Your task to perform on an android device: Empty the shopping cart on target.com. Add panasonic triple a to the cart on target.com, then select checkout. Image 0: 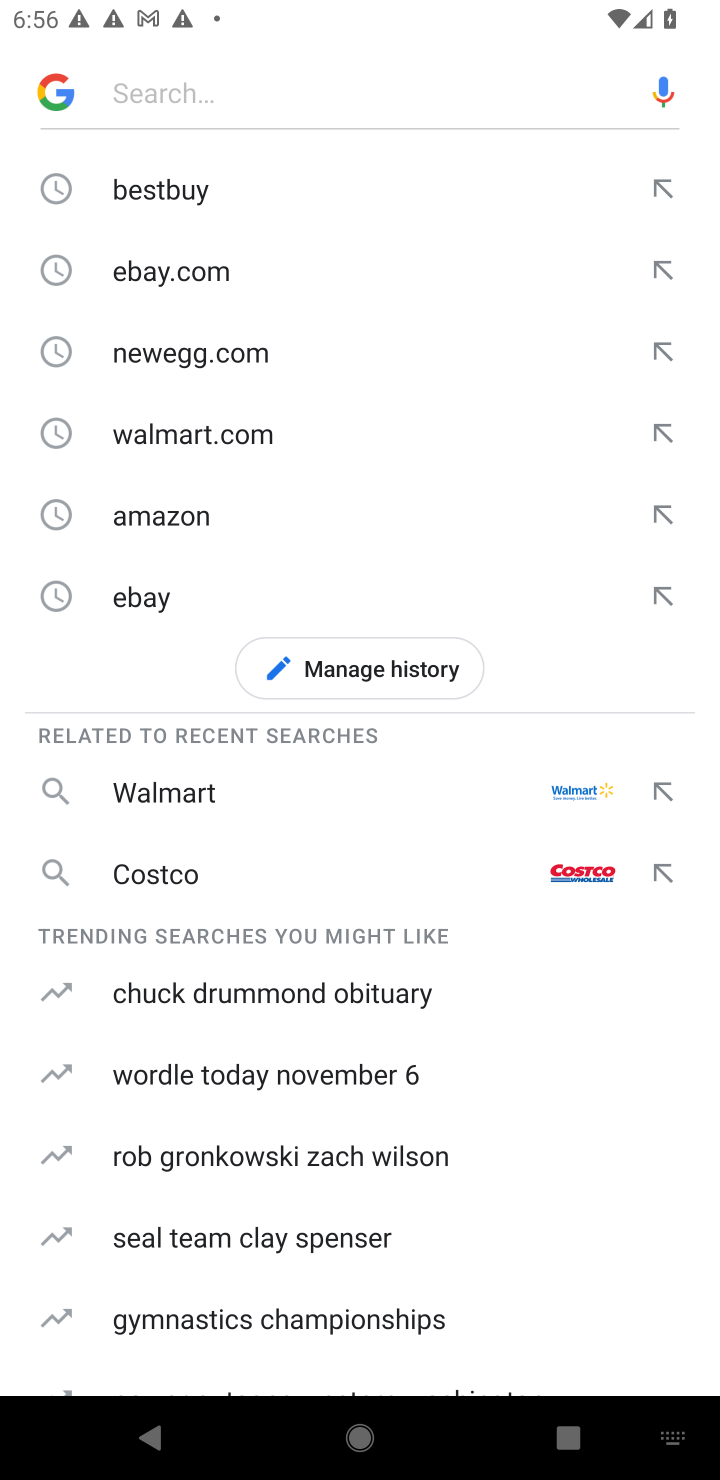
Step 0: press home button
Your task to perform on an android device: Empty the shopping cart on target.com. Add panasonic triple a to the cart on target.com, then select checkout. Image 1: 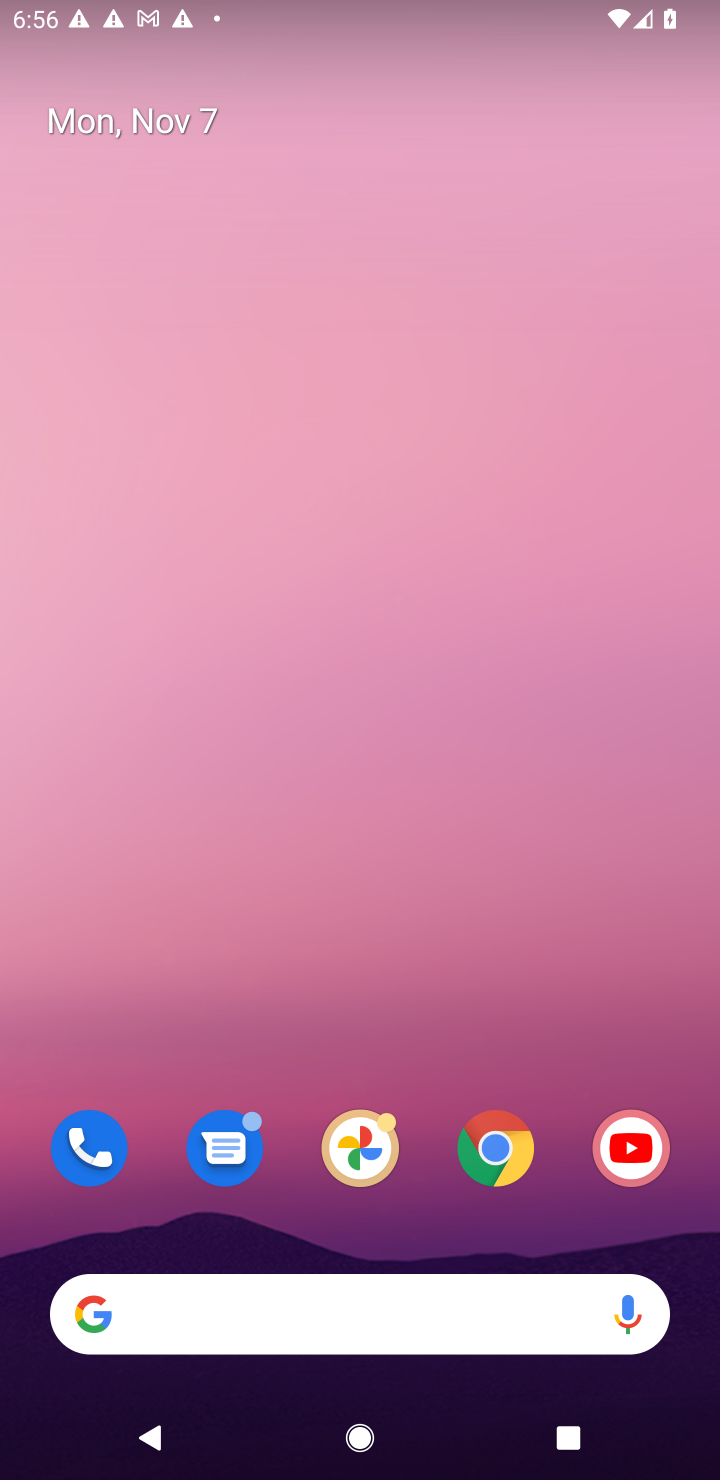
Step 1: click (494, 1141)
Your task to perform on an android device: Empty the shopping cart on target.com. Add panasonic triple a to the cart on target.com, then select checkout. Image 2: 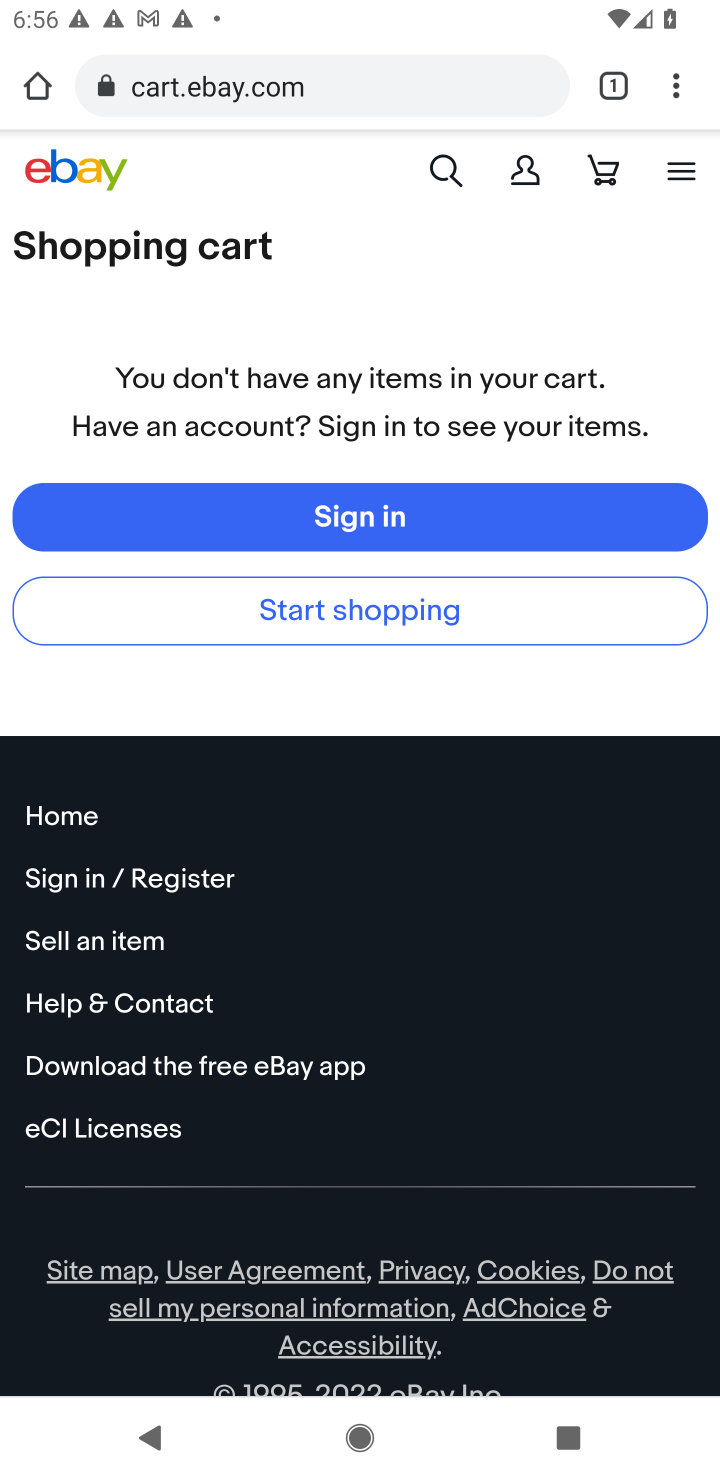
Step 2: click (410, 105)
Your task to perform on an android device: Empty the shopping cart on target.com. Add panasonic triple a to the cart on target.com, then select checkout. Image 3: 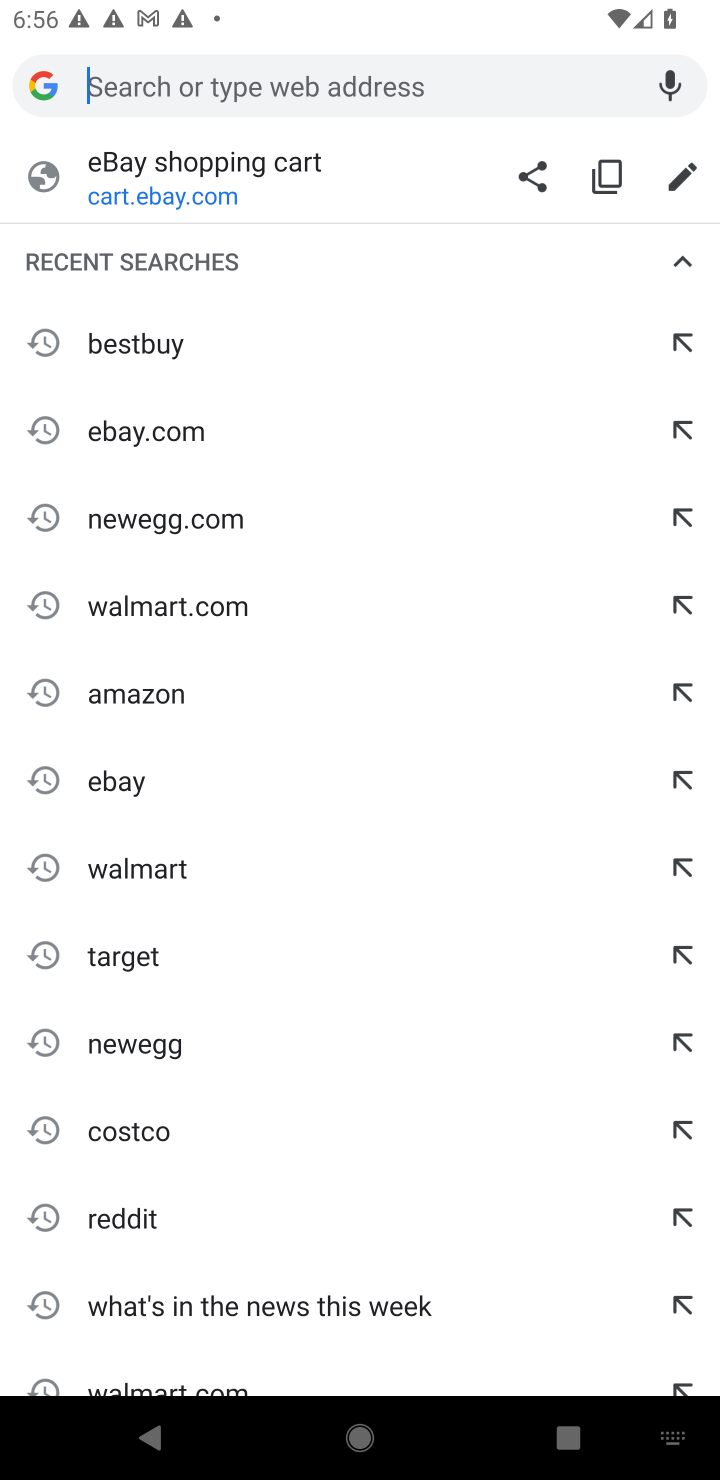
Step 3: type "target.com"
Your task to perform on an android device: Empty the shopping cart on target.com. Add panasonic triple a to the cart on target.com, then select checkout. Image 4: 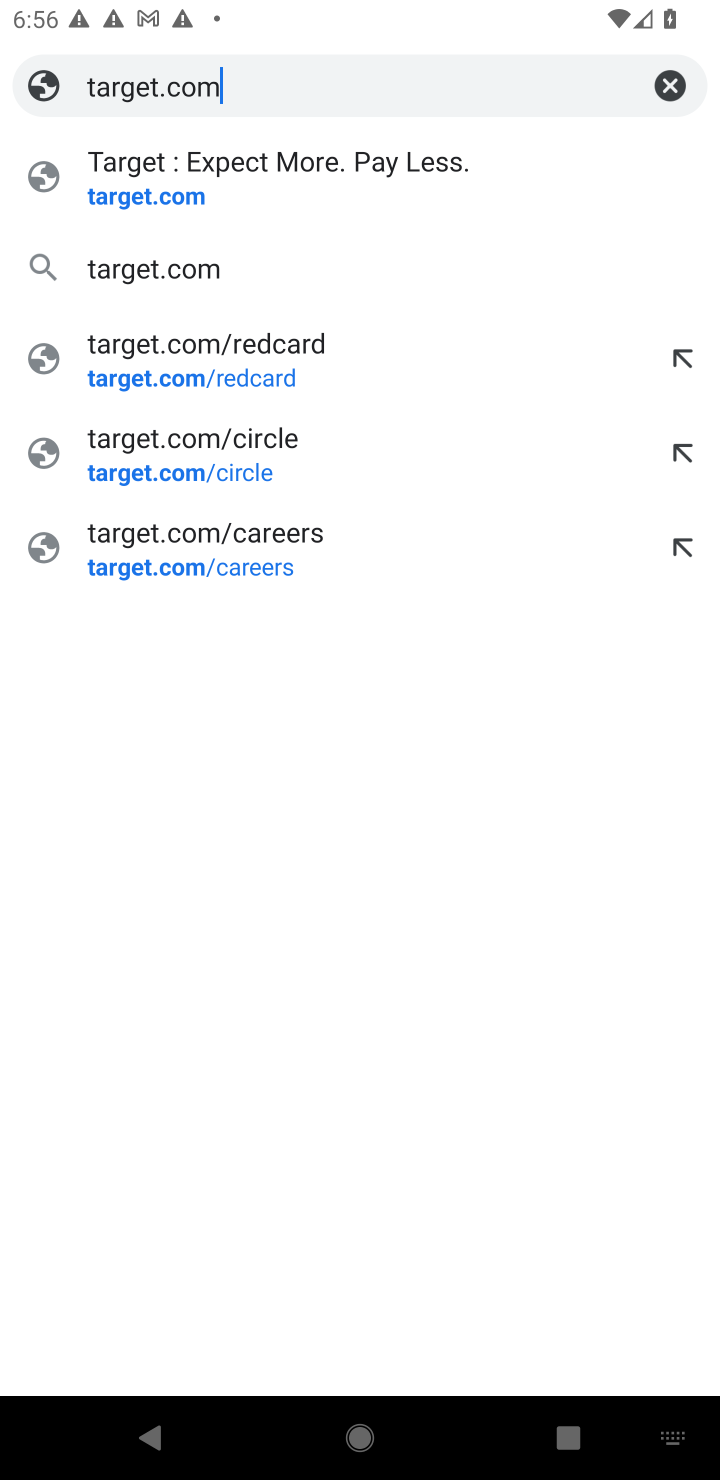
Step 4: click (177, 258)
Your task to perform on an android device: Empty the shopping cart on target.com. Add panasonic triple a to the cart on target.com, then select checkout. Image 5: 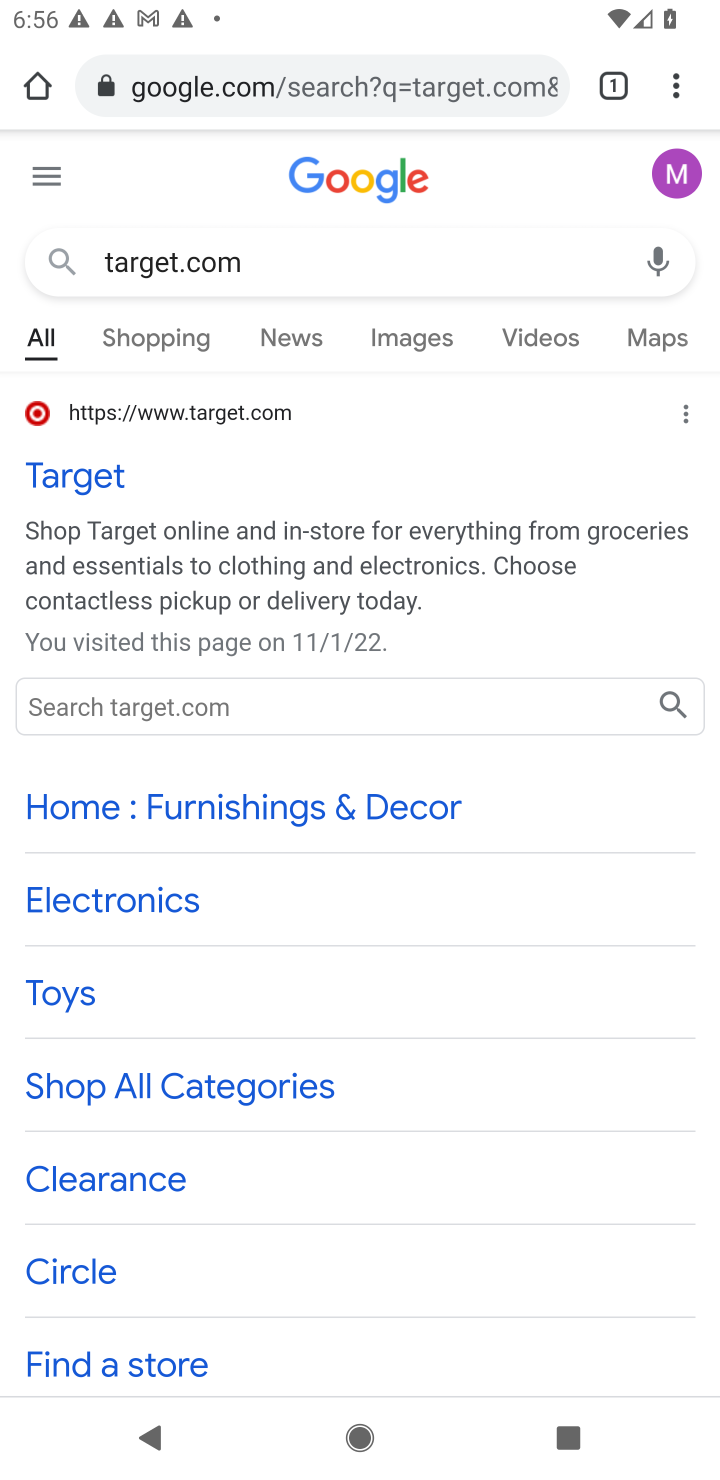
Step 5: click (149, 405)
Your task to perform on an android device: Empty the shopping cart on target.com. Add panasonic triple a to the cart on target.com, then select checkout. Image 6: 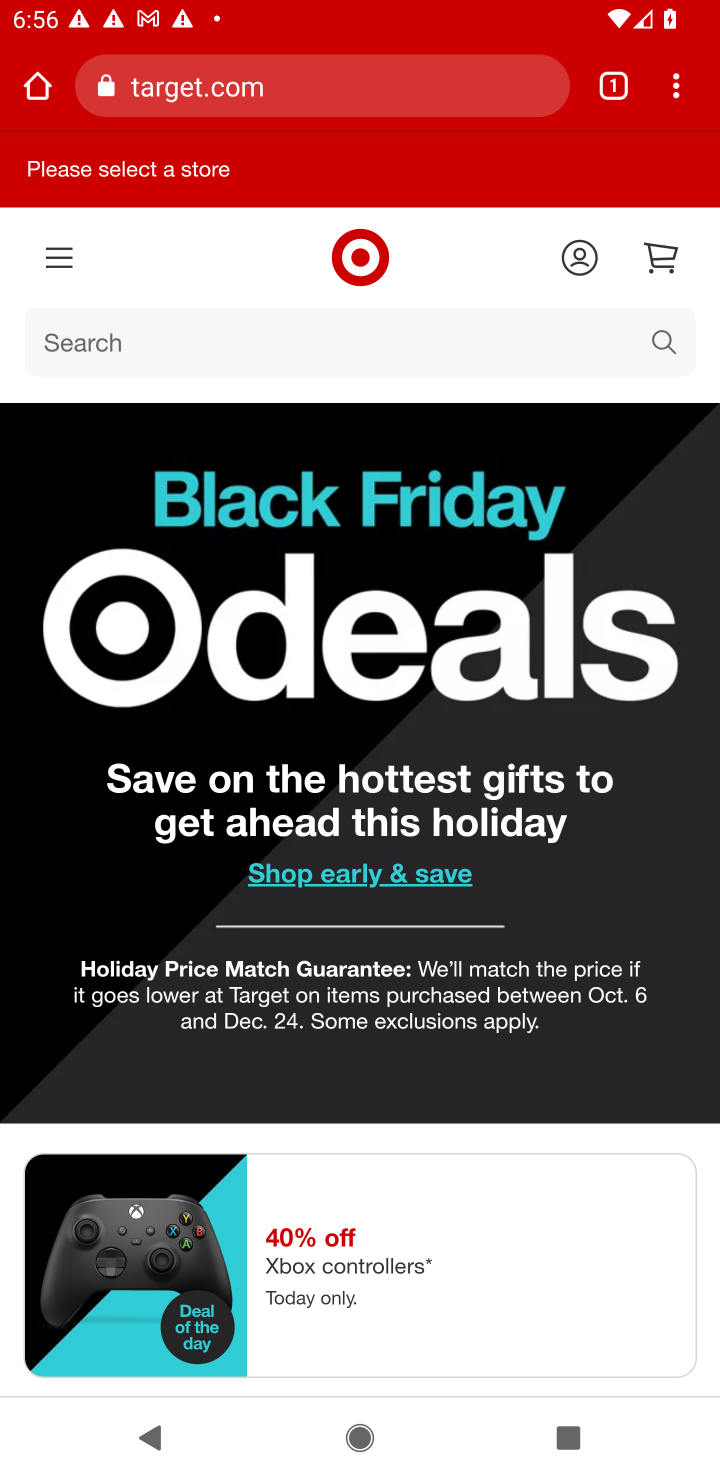
Step 6: click (654, 260)
Your task to perform on an android device: Empty the shopping cart on target.com. Add panasonic triple a to the cart on target.com, then select checkout. Image 7: 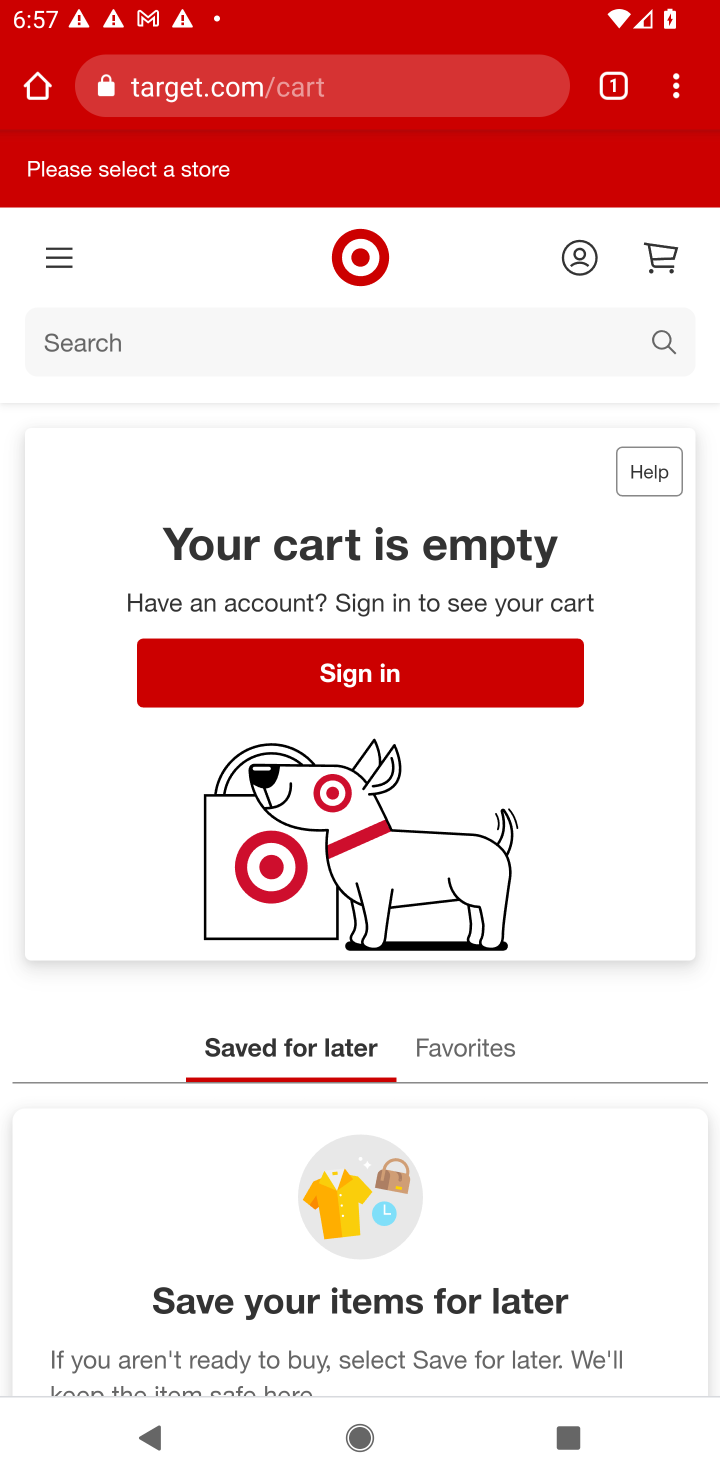
Step 7: click (665, 336)
Your task to perform on an android device: Empty the shopping cart on target.com. Add panasonic triple a to the cart on target.com, then select checkout. Image 8: 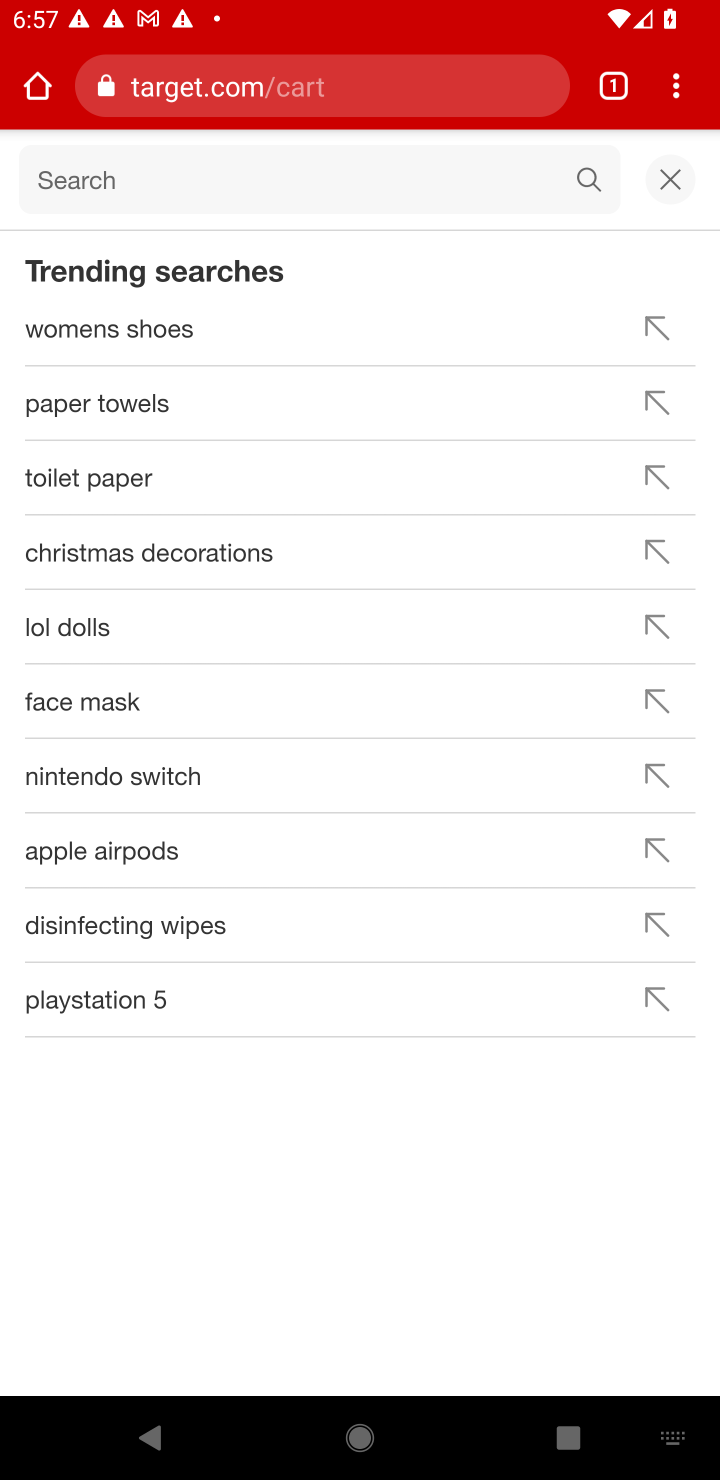
Step 8: type "panasonic triple a"
Your task to perform on an android device: Empty the shopping cart on target.com. Add panasonic triple a to the cart on target.com, then select checkout. Image 9: 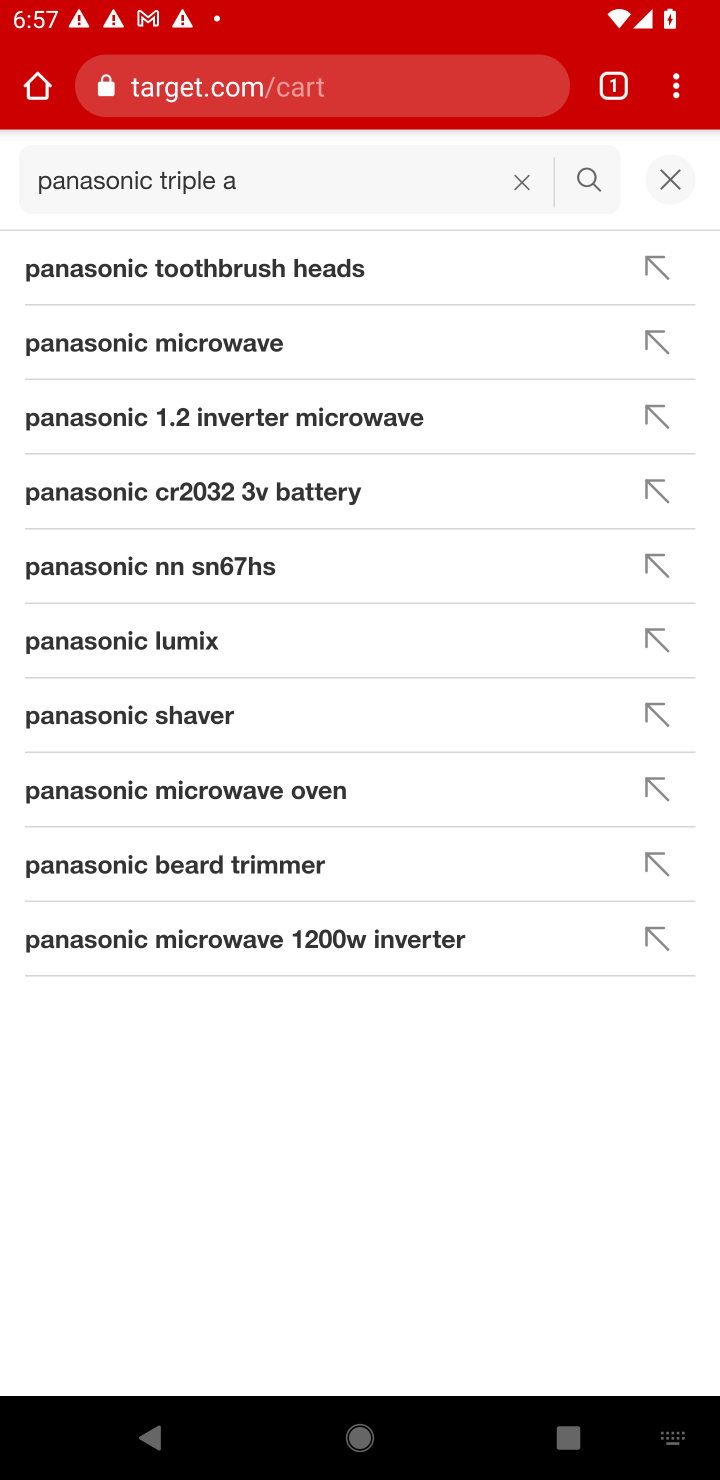
Step 9: click (574, 1190)
Your task to perform on an android device: Empty the shopping cart on target.com. Add panasonic triple a to the cart on target.com, then select checkout. Image 10: 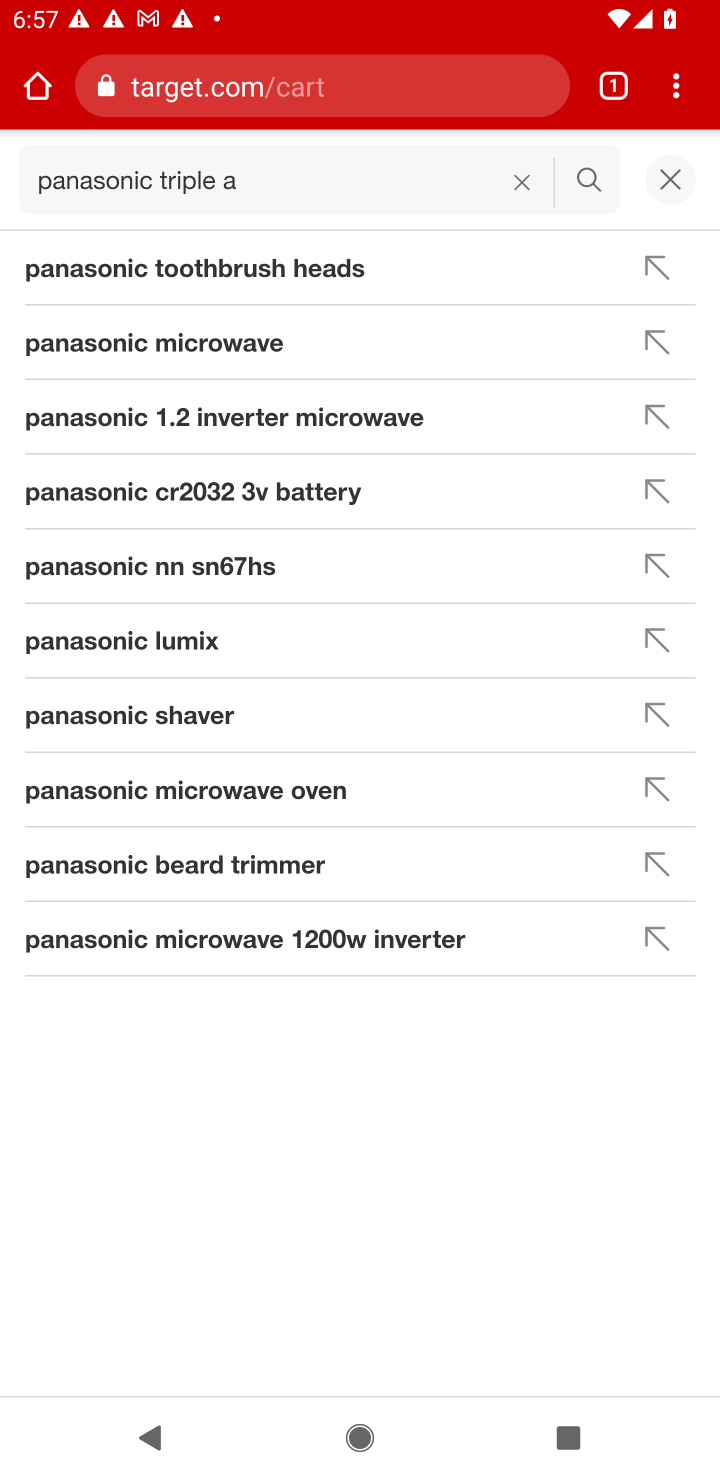
Step 10: click (525, 1166)
Your task to perform on an android device: Empty the shopping cart on target.com. Add panasonic triple a to the cart on target.com, then select checkout. Image 11: 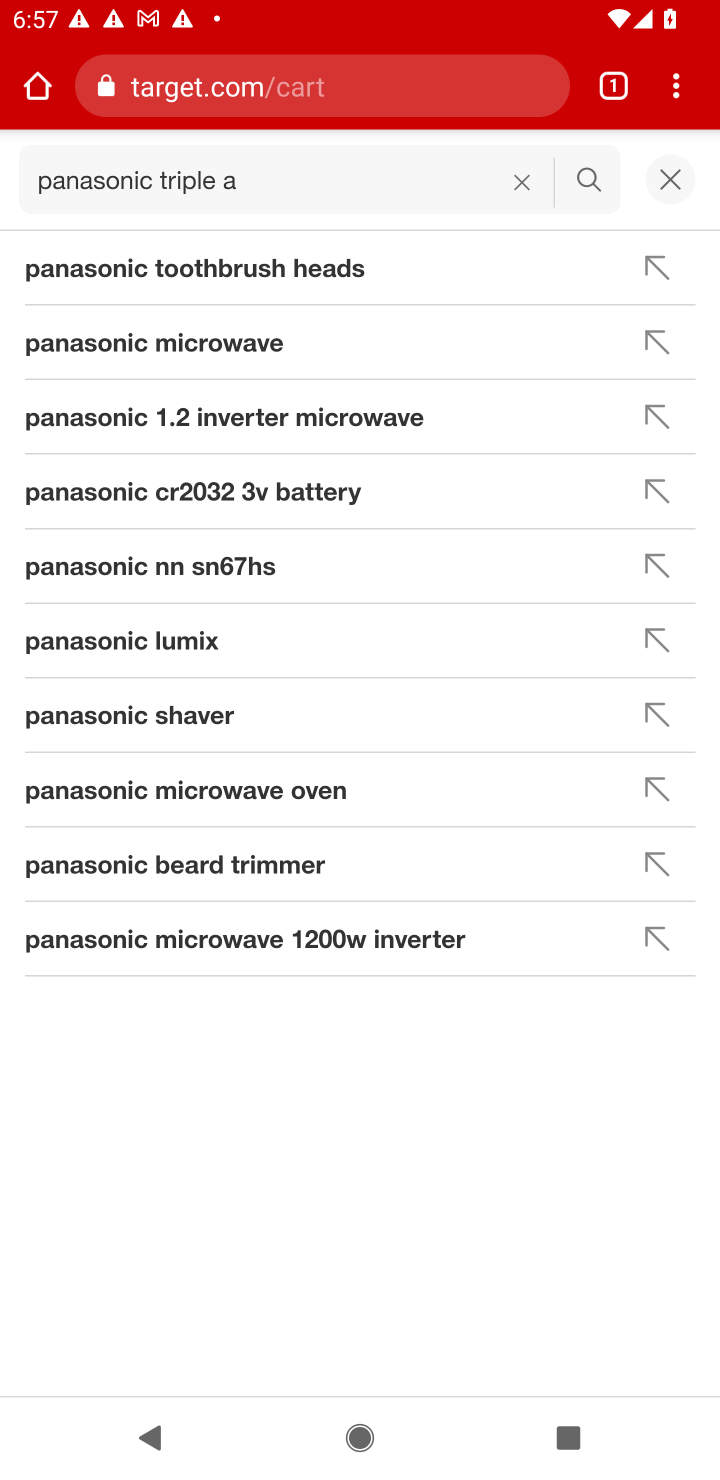
Step 11: task complete